Your task to perform on an android device: Turn off the flashlight Image 0: 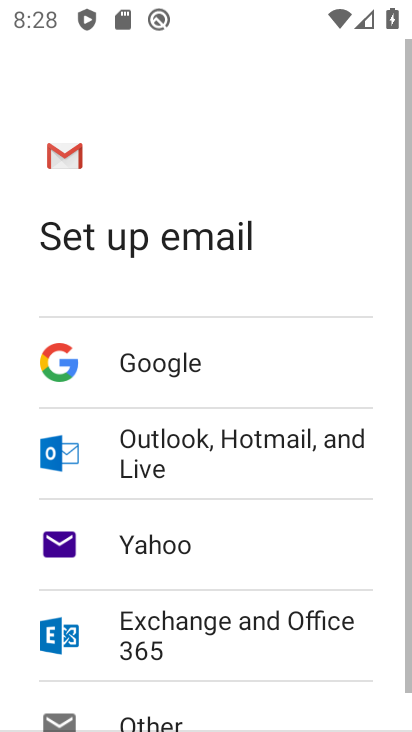
Step 0: task impossible